Your task to perform on an android device: Open Google Maps and go to "Timeline" Image 0: 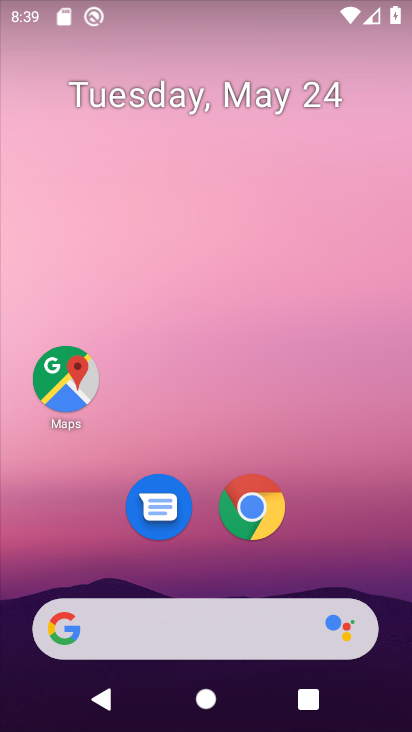
Step 0: drag from (196, 563) to (220, 177)
Your task to perform on an android device: Open Google Maps and go to "Timeline" Image 1: 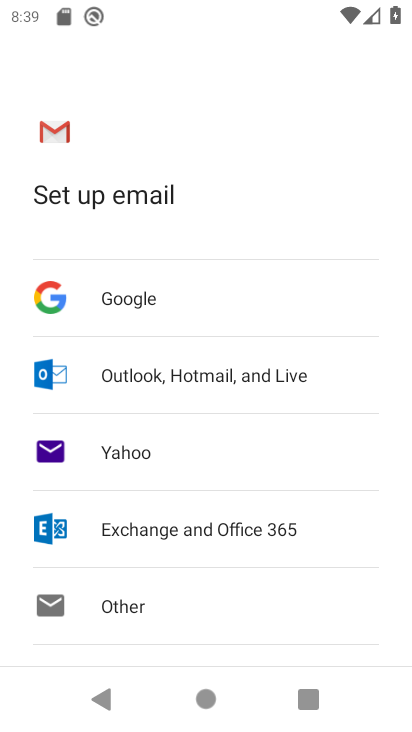
Step 1: press home button
Your task to perform on an android device: Open Google Maps and go to "Timeline" Image 2: 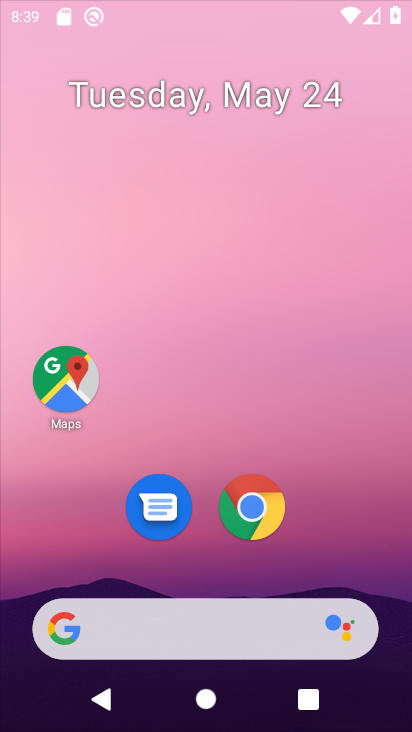
Step 2: drag from (205, 594) to (266, 2)
Your task to perform on an android device: Open Google Maps and go to "Timeline" Image 3: 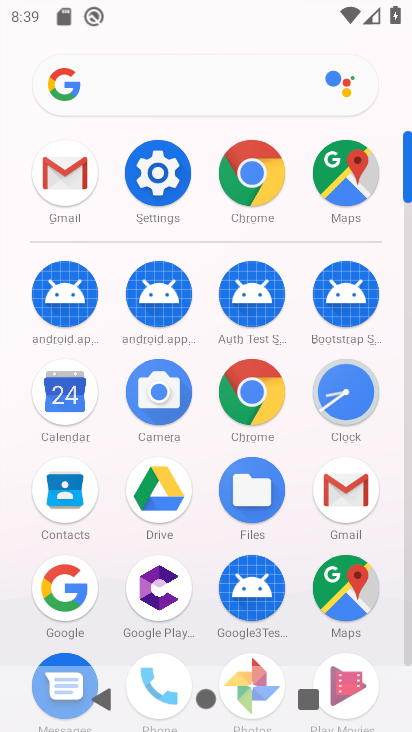
Step 3: click (344, 579)
Your task to perform on an android device: Open Google Maps and go to "Timeline" Image 4: 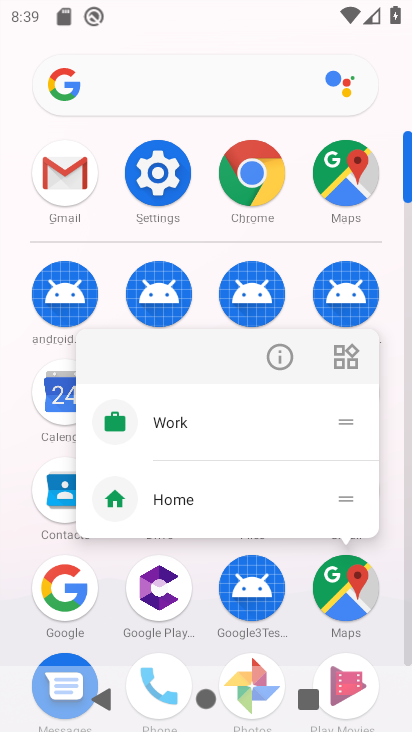
Step 4: click (275, 358)
Your task to perform on an android device: Open Google Maps and go to "Timeline" Image 5: 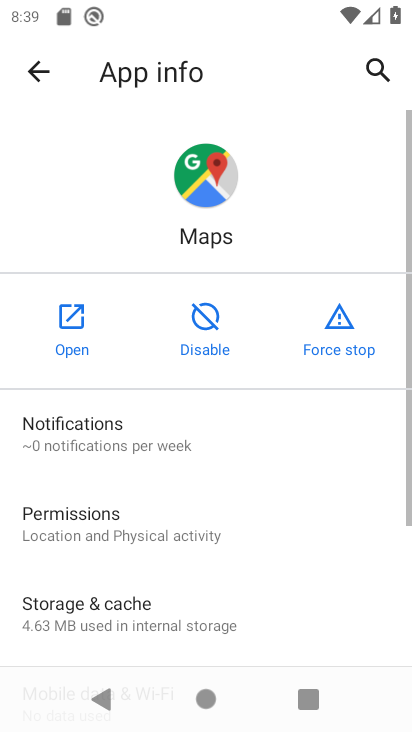
Step 5: click (61, 302)
Your task to perform on an android device: Open Google Maps and go to "Timeline" Image 6: 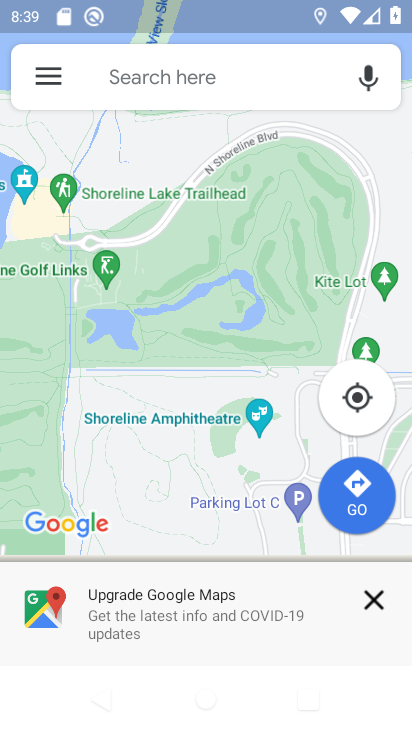
Step 6: click (51, 82)
Your task to perform on an android device: Open Google Maps and go to "Timeline" Image 7: 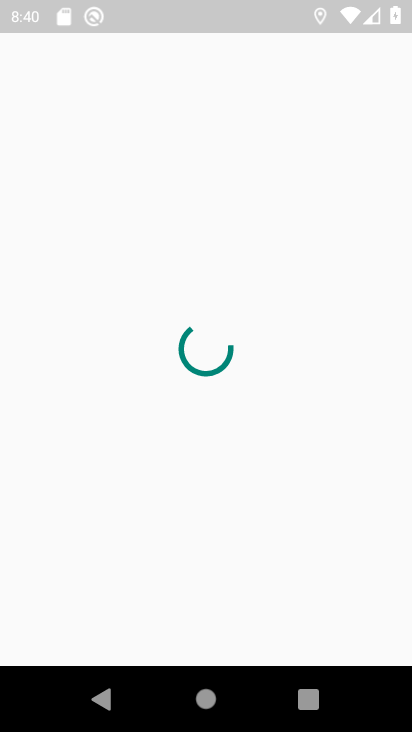
Step 7: click (164, 342)
Your task to perform on an android device: Open Google Maps and go to "Timeline" Image 8: 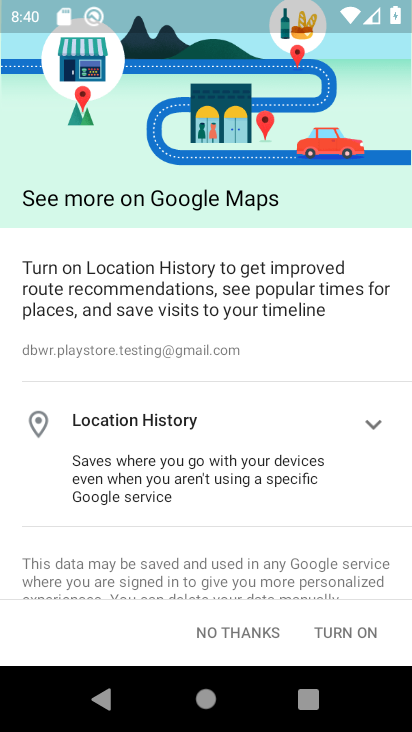
Step 8: drag from (241, 561) to (258, 153)
Your task to perform on an android device: Open Google Maps and go to "Timeline" Image 9: 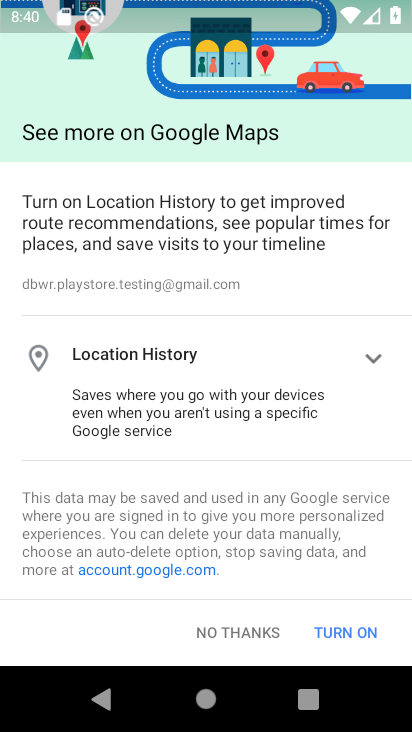
Step 9: click (327, 623)
Your task to perform on an android device: Open Google Maps and go to "Timeline" Image 10: 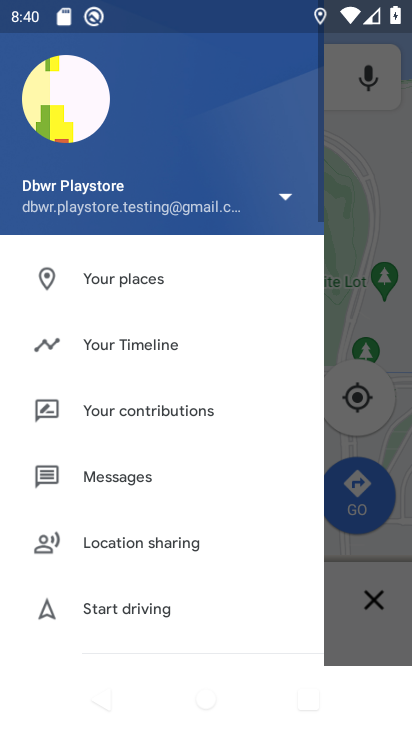
Step 10: drag from (124, 554) to (197, 244)
Your task to perform on an android device: Open Google Maps and go to "Timeline" Image 11: 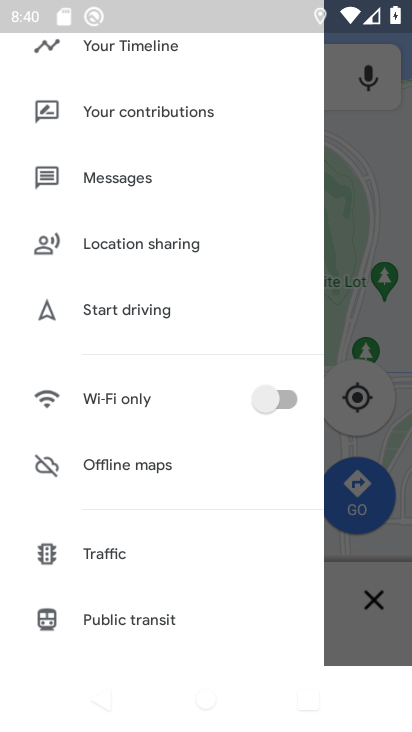
Step 11: click (188, 52)
Your task to perform on an android device: Open Google Maps and go to "Timeline" Image 12: 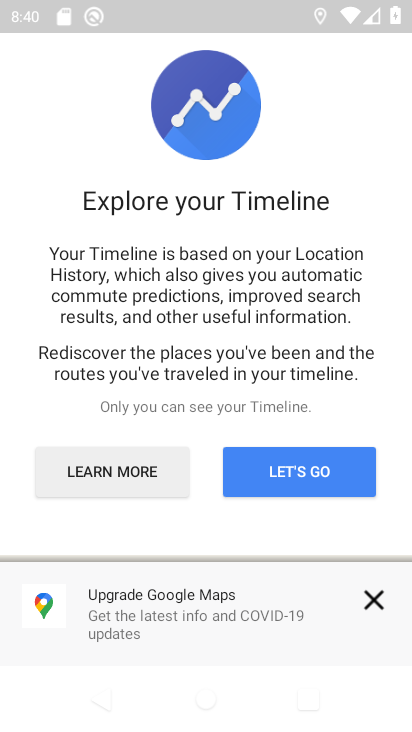
Step 12: click (385, 595)
Your task to perform on an android device: Open Google Maps and go to "Timeline" Image 13: 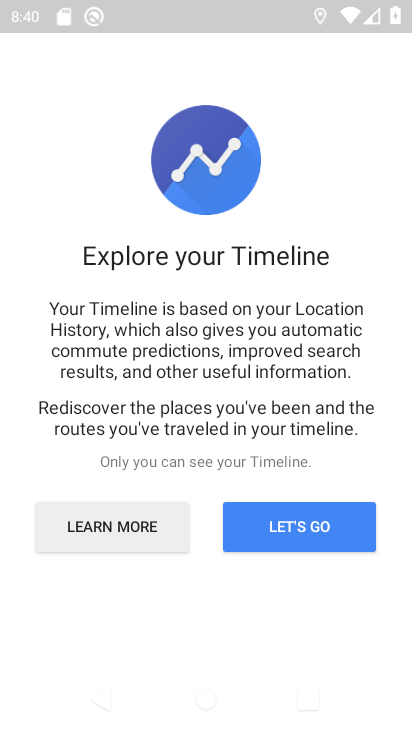
Step 13: click (275, 533)
Your task to perform on an android device: Open Google Maps and go to "Timeline" Image 14: 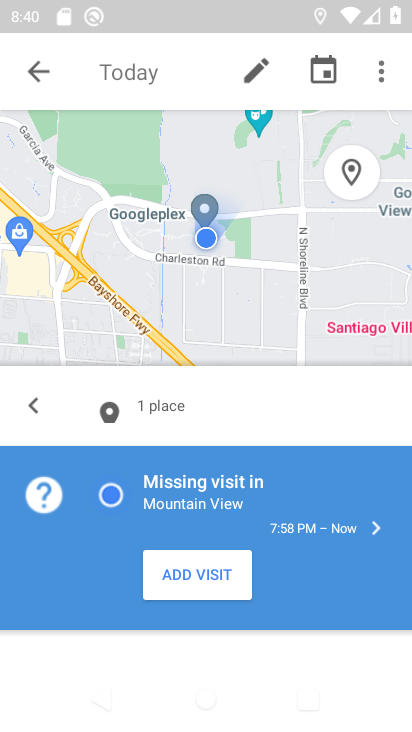
Step 14: task complete